Your task to perform on an android device: Go to wifi settings Image 0: 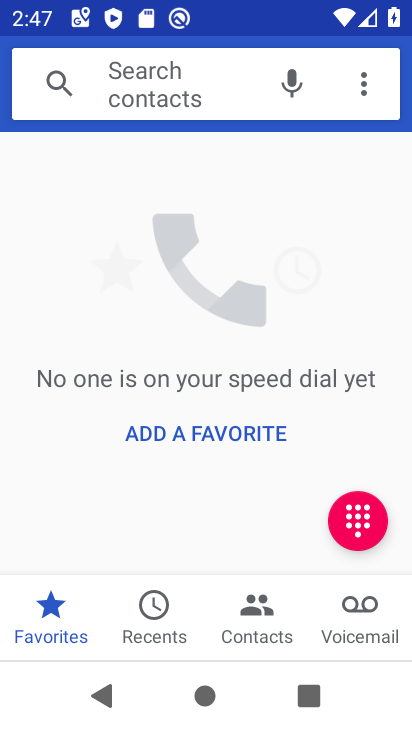
Step 0: press home button
Your task to perform on an android device: Go to wifi settings Image 1: 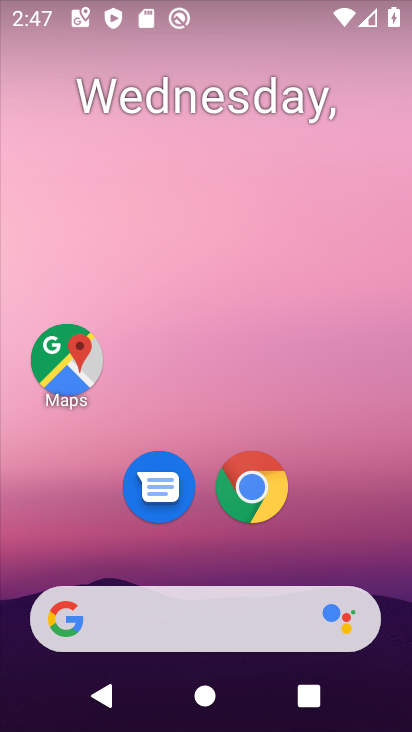
Step 1: drag from (346, 555) to (349, 122)
Your task to perform on an android device: Go to wifi settings Image 2: 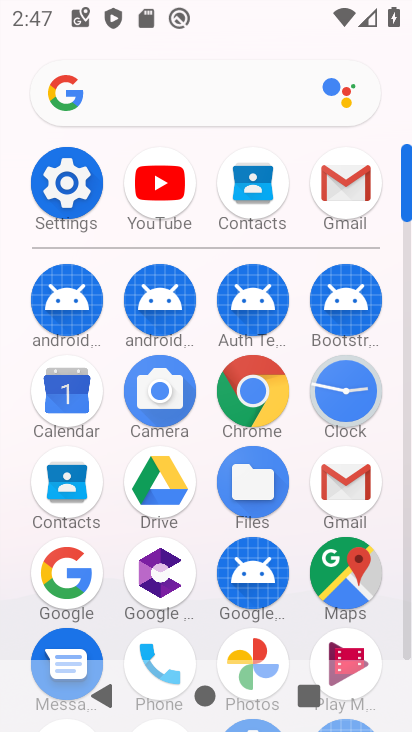
Step 2: click (73, 206)
Your task to perform on an android device: Go to wifi settings Image 3: 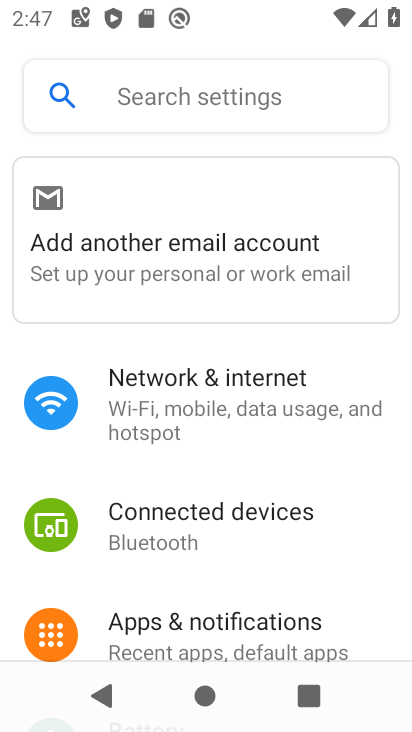
Step 3: drag from (331, 472) to (339, 313)
Your task to perform on an android device: Go to wifi settings Image 4: 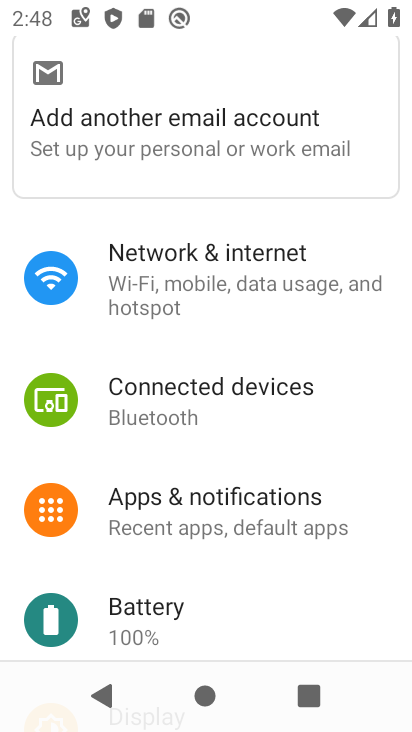
Step 4: click (270, 285)
Your task to perform on an android device: Go to wifi settings Image 5: 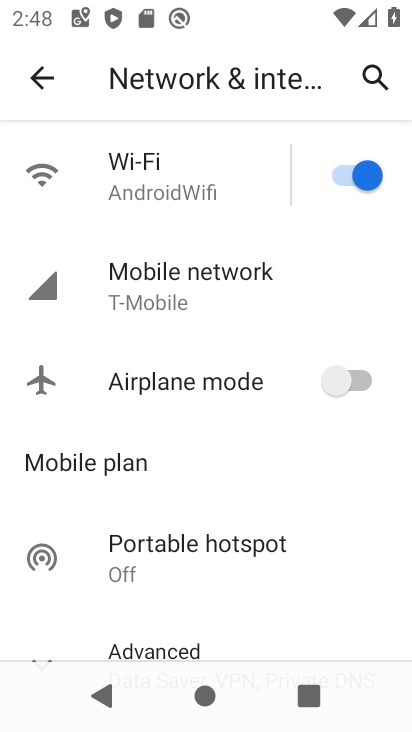
Step 5: click (209, 198)
Your task to perform on an android device: Go to wifi settings Image 6: 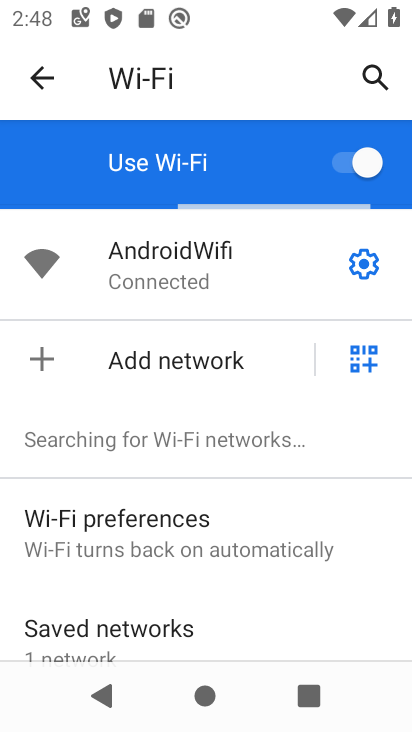
Step 6: task complete